Your task to perform on an android device: toggle javascript in the chrome app Image 0: 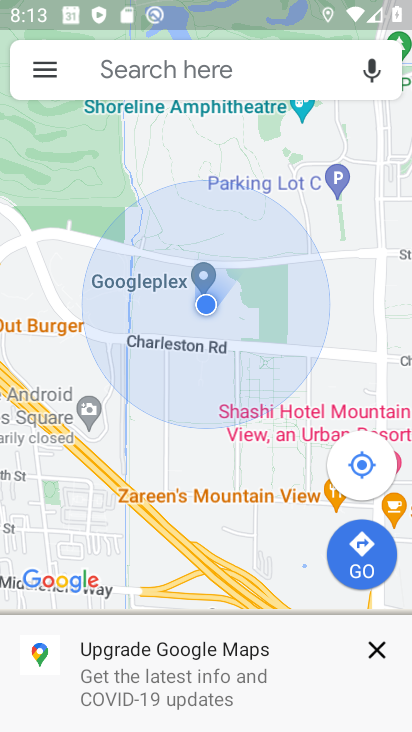
Step 0: press home button
Your task to perform on an android device: toggle javascript in the chrome app Image 1: 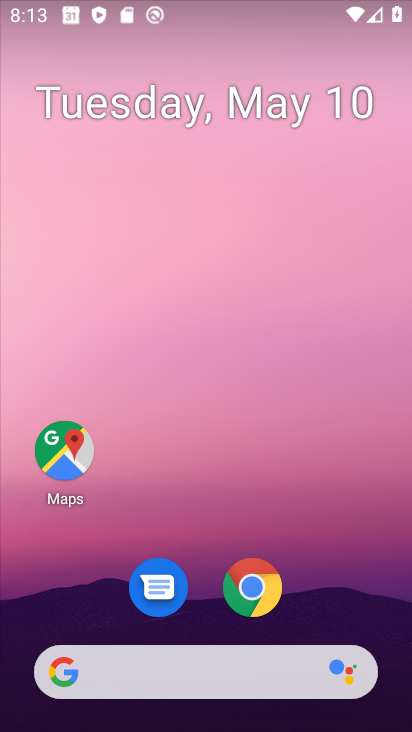
Step 1: drag from (366, 554) to (313, 110)
Your task to perform on an android device: toggle javascript in the chrome app Image 2: 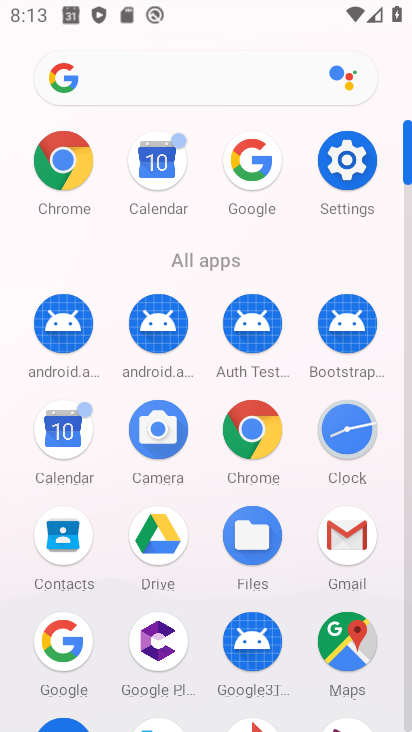
Step 2: click (74, 151)
Your task to perform on an android device: toggle javascript in the chrome app Image 3: 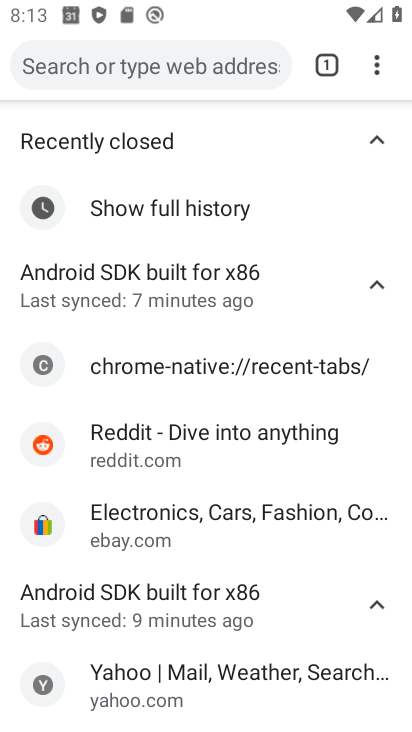
Step 3: drag from (383, 71) to (198, 553)
Your task to perform on an android device: toggle javascript in the chrome app Image 4: 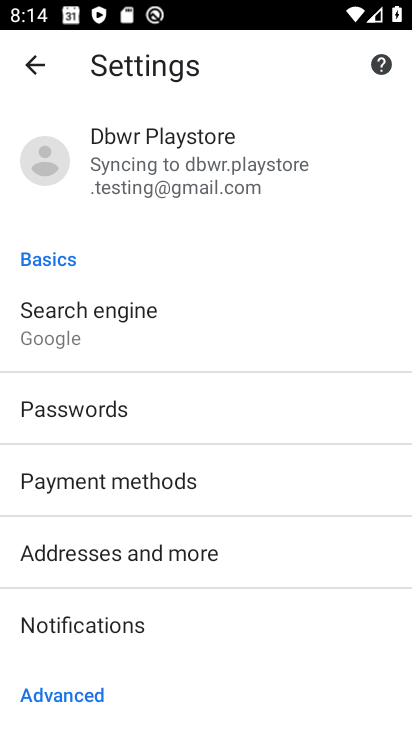
Step 4: drag from (194, 603) to (90, 253)
Your task to perform on an android device: toggle javascript in the chrome app Image 5: 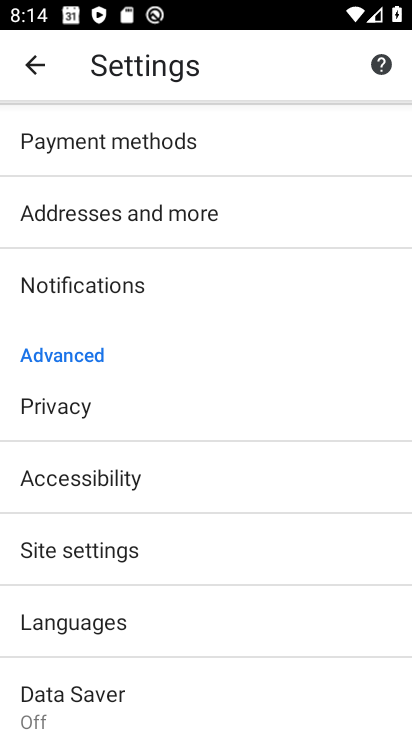
Step 5: click (62, 558)
Your task to perform on an android device: toggle javascript in the chrome app Image 6: 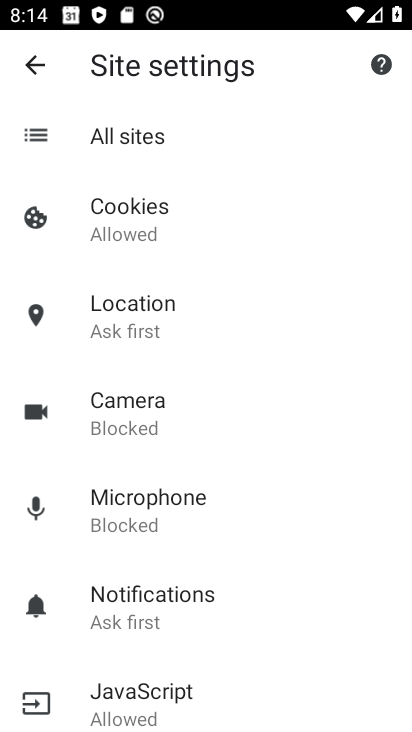
Step 6: drag from (157, 690) to (104, 437)
Your task to perform on an android device: toggle javascript in the chrome app Image 7: 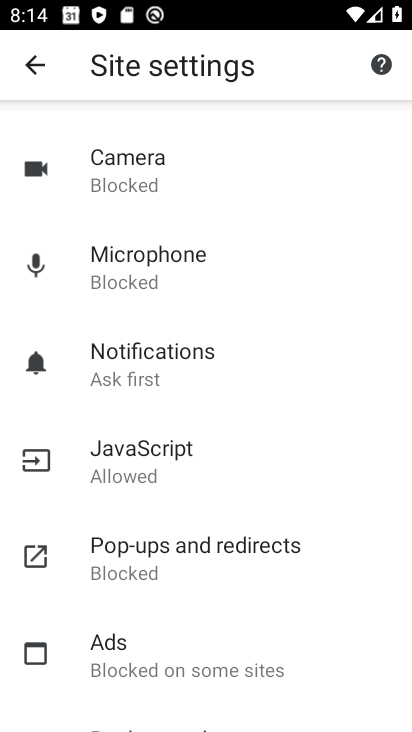
Step 7: click (143, 466)
Your task to perform on an android device: toggle javascript in the chrome app Image 8: 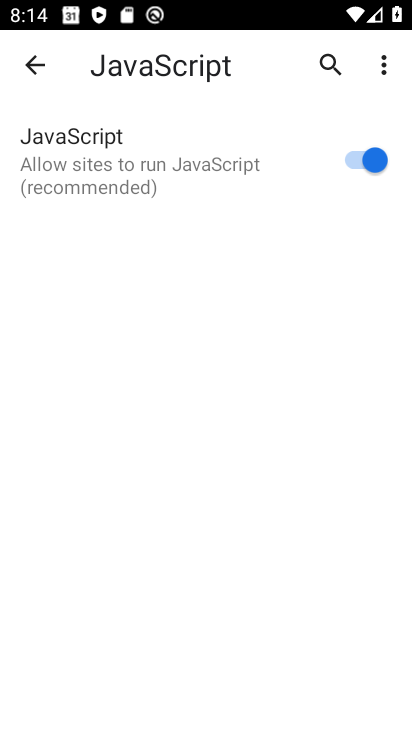
Step 8: click (365, 162)
Your task to perform on an android device: toggle javascript in the chrome app Image 9: 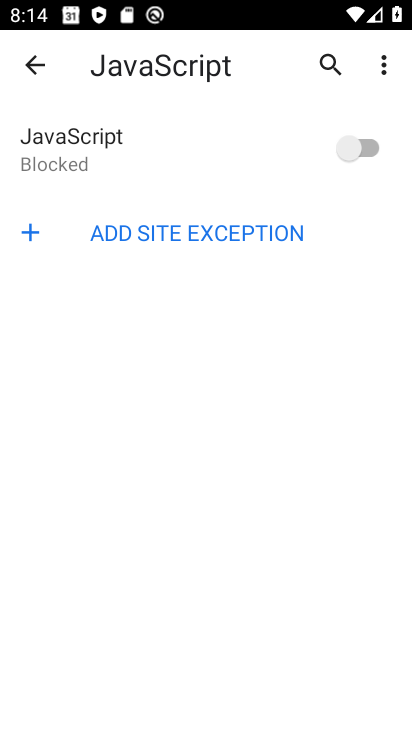
Step 9: task complete